Your task to perform on an android device: What's on my calendar today? Image 0: 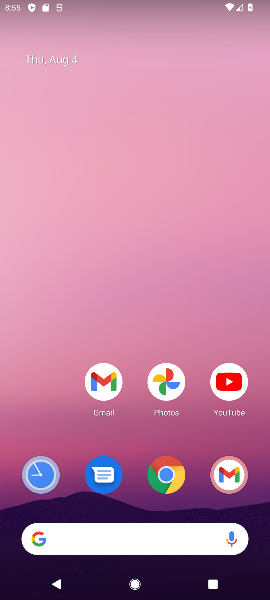
Step 0: drag from (136, 523) to (164, 158)
Your task to perform on an android device: What's on my calendar today? Image 1: 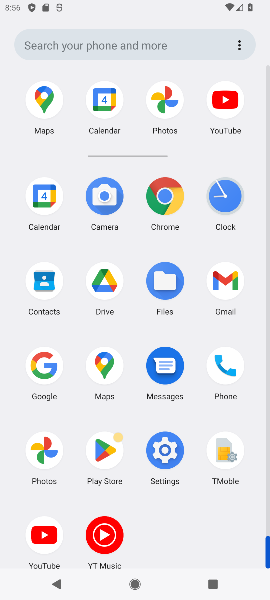
Step 1: click (41, 206)
Your task to perform on an android device: What's on my calendar today? Image 2: 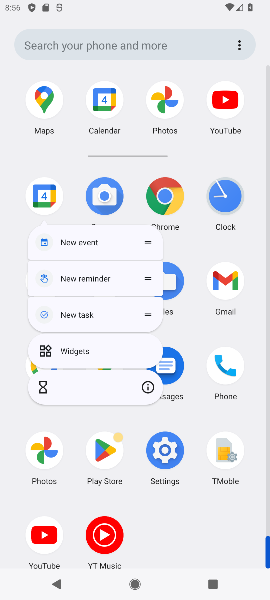
Step 2: click (152, 384)
Your task to perform on an android device: What's on my calendar today? Image 3: 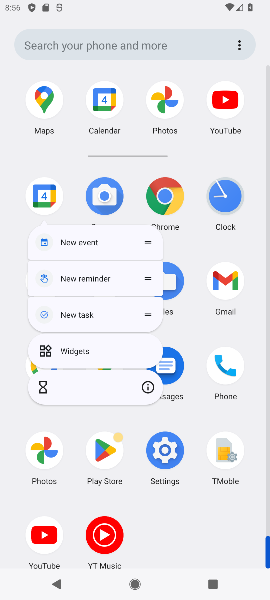
Step 3: click (152, 384)
Your task to perform on an android device: What's on my calendar today? Image 4: 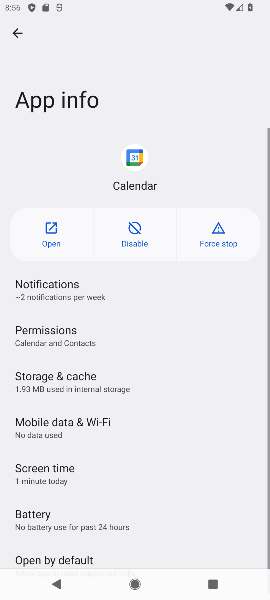
Step 4: click (49, 236)
Your task to perform on an android device: What's on my calendar today? Image 5: 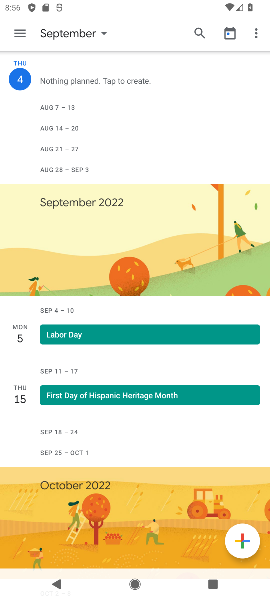
Step 5: click (91, 25)
Your task to perform on an android device: What's on my calendar today? Image 6: 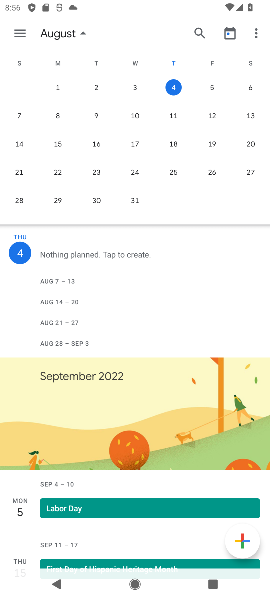
Step 6: click (171, 93)
Your task to perform on an android device: What's on my calendar today? Image 7: 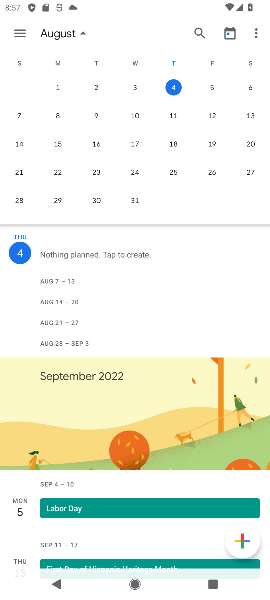
Step 7: task complete